Your task to perform on an android device: turn vacation reply on in the gmail app Image 0: 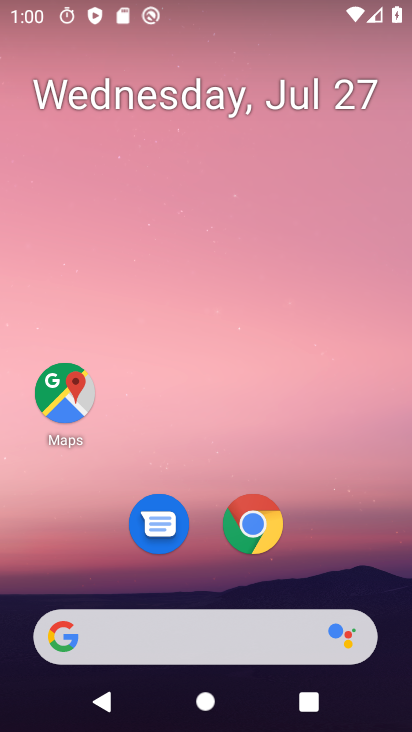
Step 0: drag from (349, 429) to (314, 2)
Your task to perform on an android device: turn vacation reply on in the gmail app Image 1: 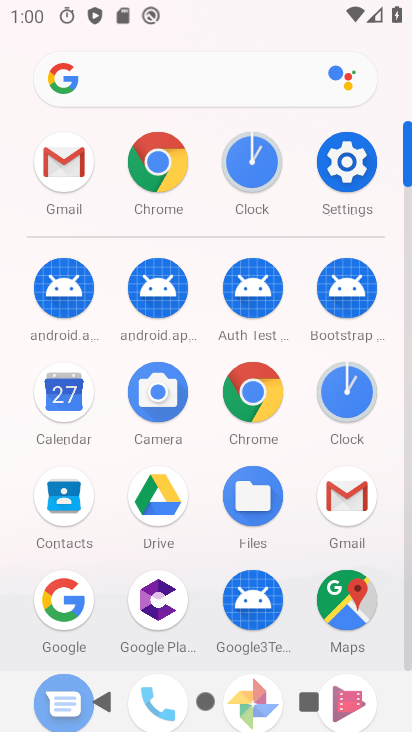
Step 1: click (73, 167)
Your task to perform on an android device: turn vacation reply on in the gmail app Image 2: 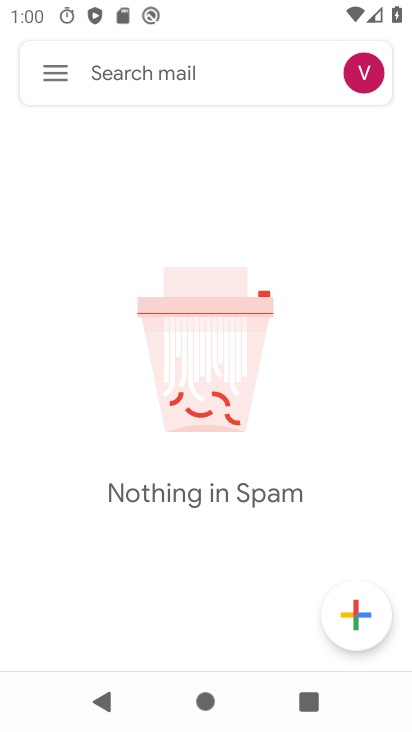
Step 2: click (62, 71)
Your task to perform on an android device: turn vacation reply on in the gmail app Image 3: 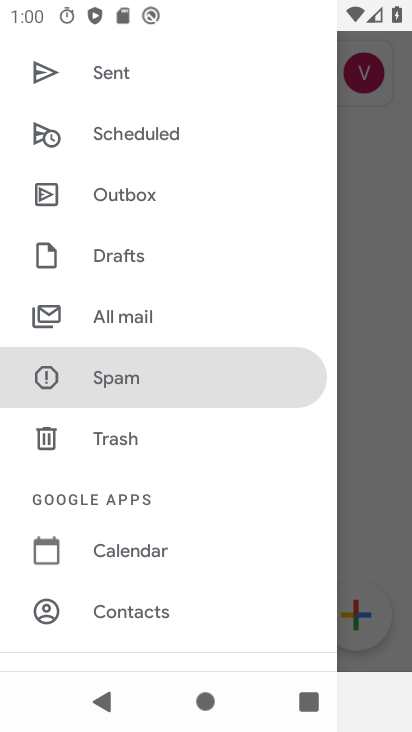
Step 3: drag from (136, 568) to (180, 213)
Your task to perform on an android device: turn vacation reply on in the gmail app Image 4: 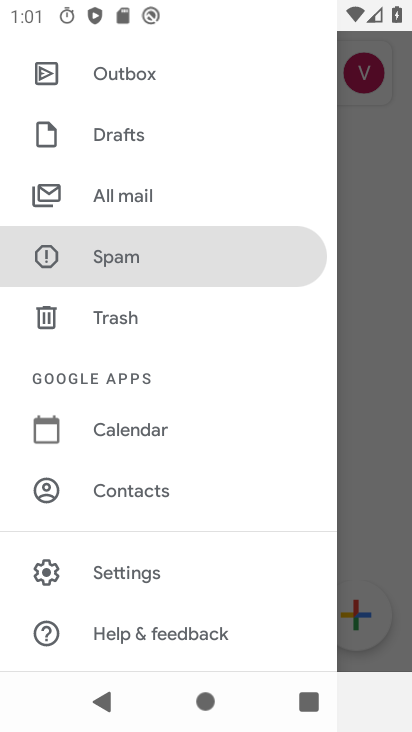
Step 4: click (134, 563)
Your task to perform on an android device: turn vacation reply on in the gmail app Image 5: 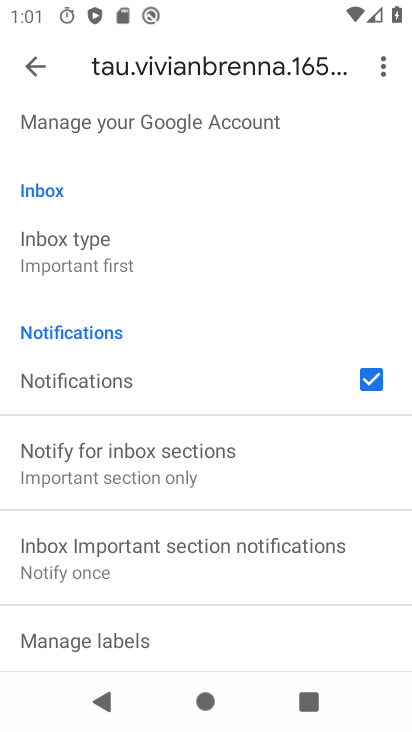
Step 5: drag from (230, 393) to (236, 89)
Your task to perform on an android device: turn vacation reply on in the gmail app Image 6: 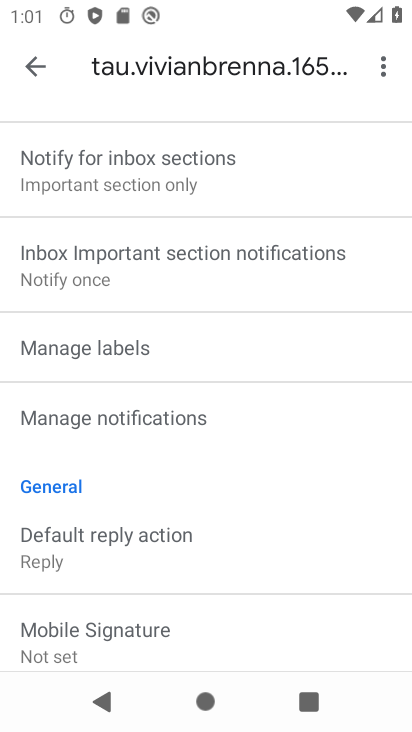
Step 6: drag from (237, 475) to (235, 96)
Your task to perform on an android device: turn vacation reply on in the gmail app Image 7: 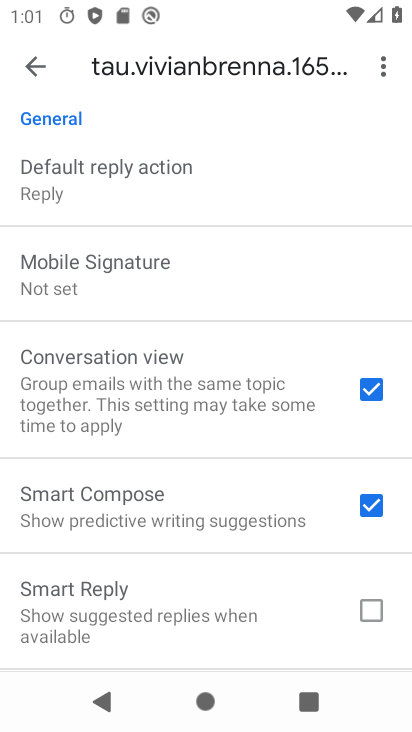
Step 7: drag from (241, 546) to (216, 183)
Your task to perform on an android device: turn vacation reply on in the gmail app Image 8: 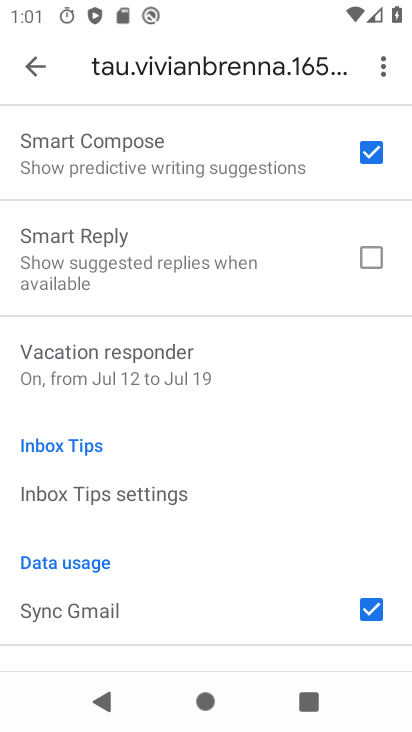
Step 8: click (220, 347)
Your task to perform on an android device: turn vacation reply on in the gmail app Image 9: 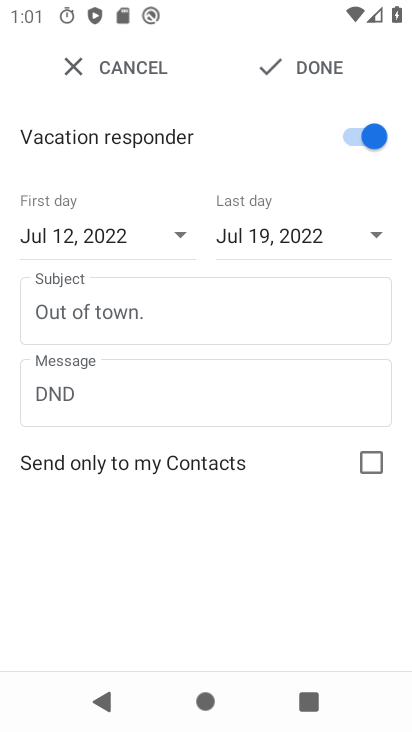
Step 9: task complete